Your task to perform on an android device: find snoozed emails in the gmail app Image 0: 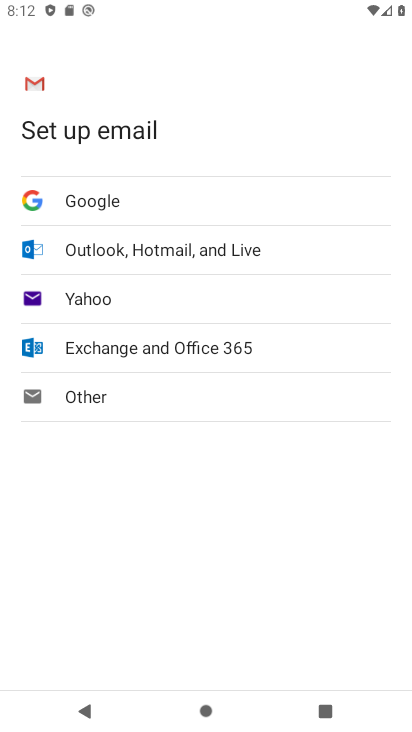
Step 0: press home button
Your task to perform on an android device: find snoozed emails in the gmail app Image 1: 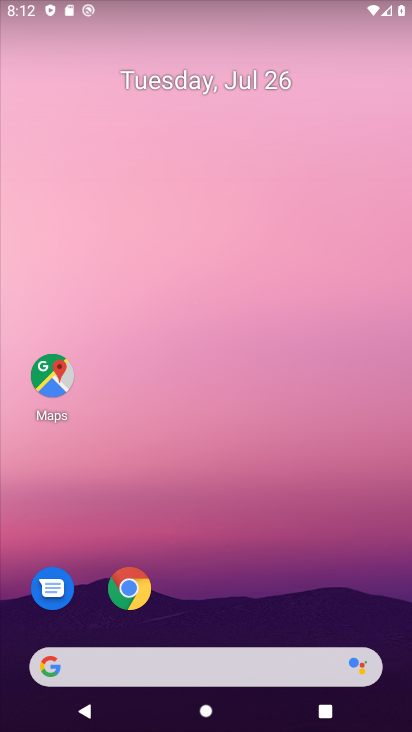
Step 1: drag from (291, 603) to (272, 133)
Your task to perform on an android device: find snoozed emails in the gmail app Image 2: 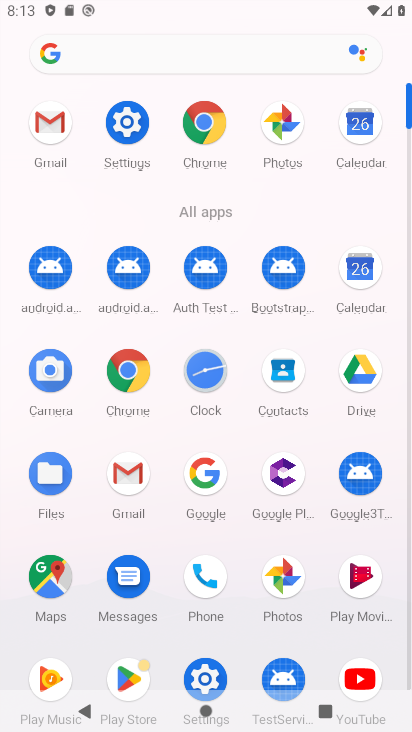
Step 2: click (48, 132)
Your task to perform on an android device: find snoozed emails in the gmail app Image 3: 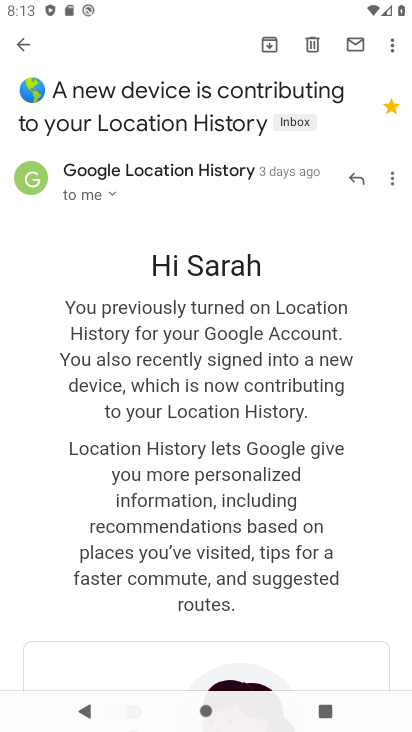
Step 3: click (18, 45)
Your task to perform on an android device: find snoozed emails in the gmail app Image 4: 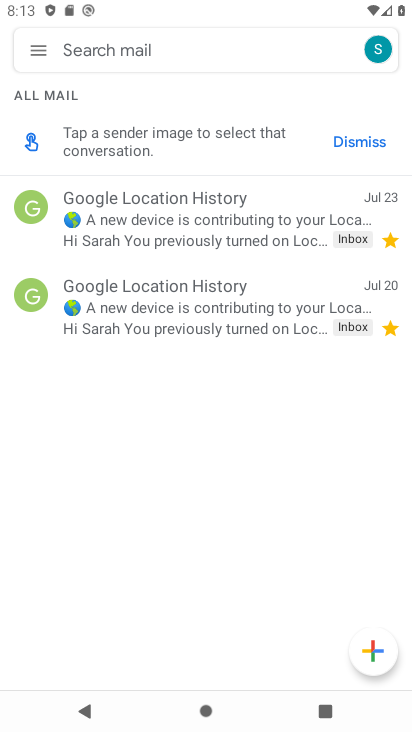
Step 4: click (27, 45)
Your task to perform on an android device: find snoozed emails in the gmail app Image 5: 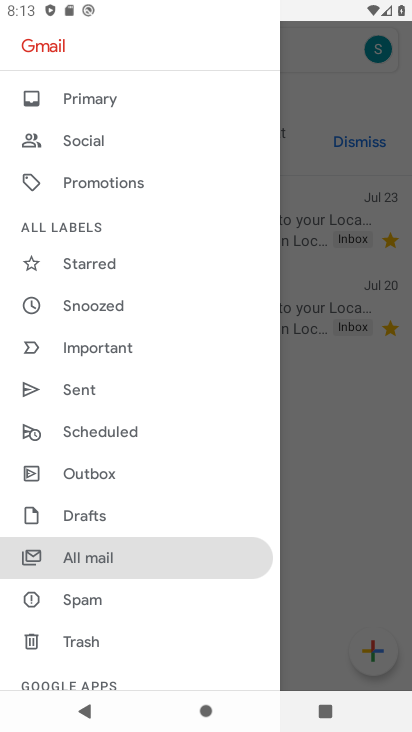
Step 5: click (106, 304)
Your task to perform on an android device: find snoozed emails in the gmail app Image 6: 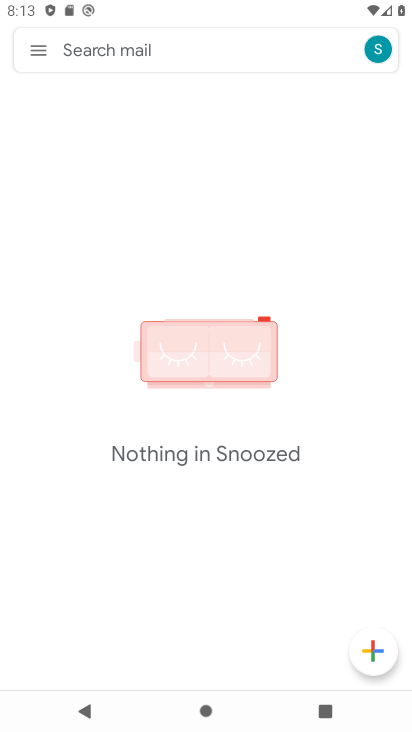
Step 6: task complete